Your task to perform on an android device: Open calendar and show me the fourth week of next month Image 0: 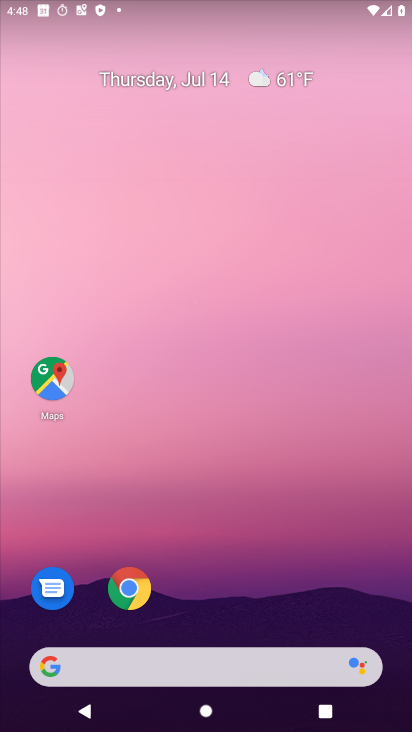
Step 0: drag from (217, 661) to (322, 344)
Your task to perform on an android device: Open calendar and show me the fourth week of next month Image 1: 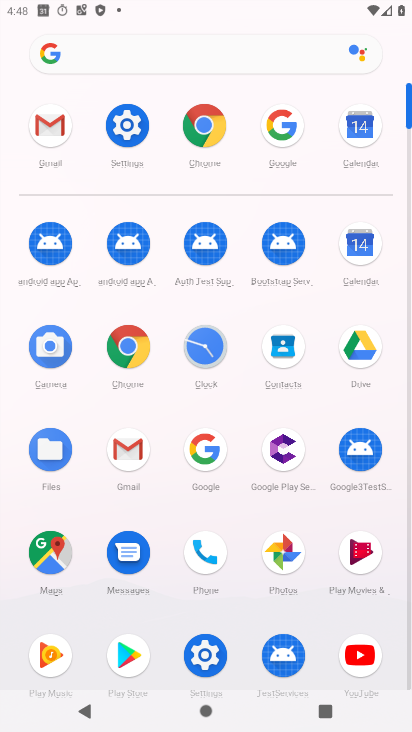
Step 1: click (358, 243)
Your task to perform on an android device: Open calendar and show me the fourth week of next month Image 2: 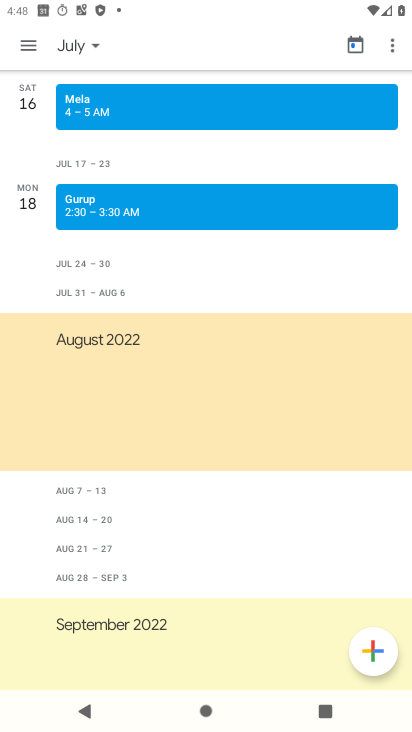
Step 2: click (356, 44)
Your task to perform on an android device: Open calendar and show me the fourth week of next month Image 3: 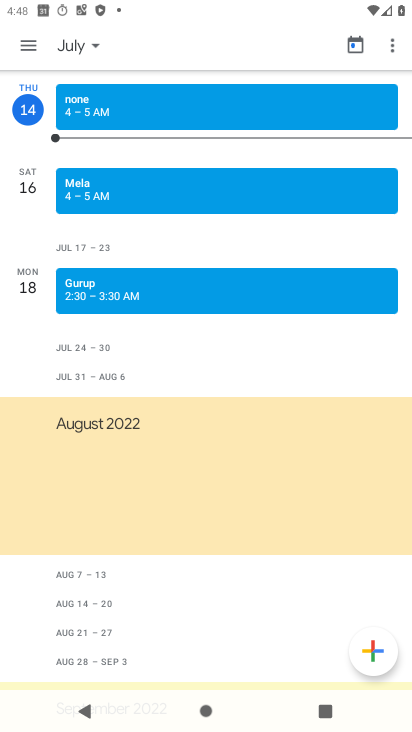
Step 3: click (93, 42)
Your task to perform on an android device: Open calendar and show me the fourth week of next month Image 4: 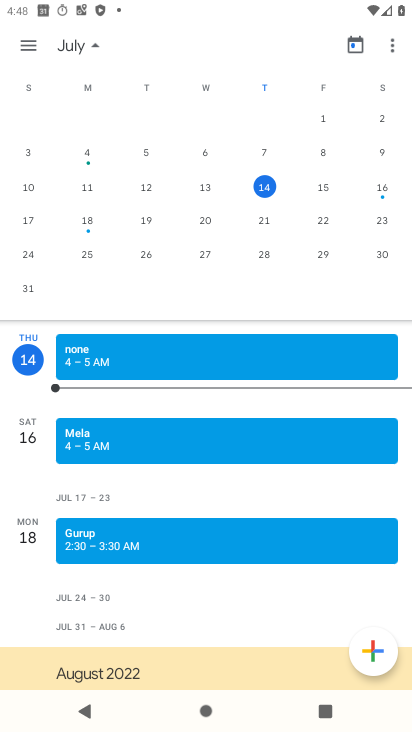
Step 4: drag from (364, 237) to (19, 228)
Your task to perform on an android device: Open calendar and show me the fourth week of next month Image 5: 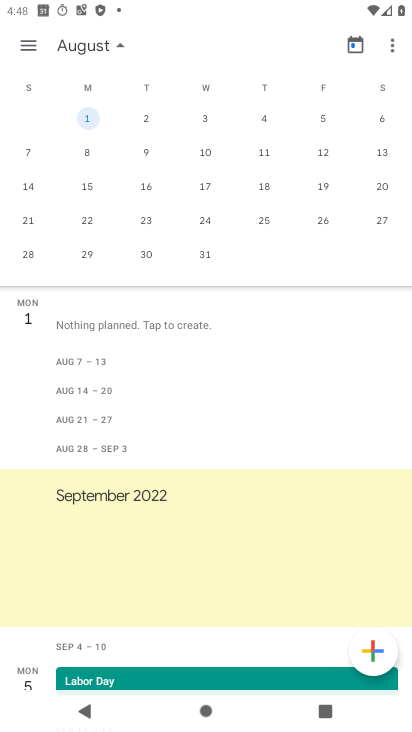
Step 5: click (91, 216)
Your task to perform on an android device: Open calendar and show me the fourth week of next month Image 6: 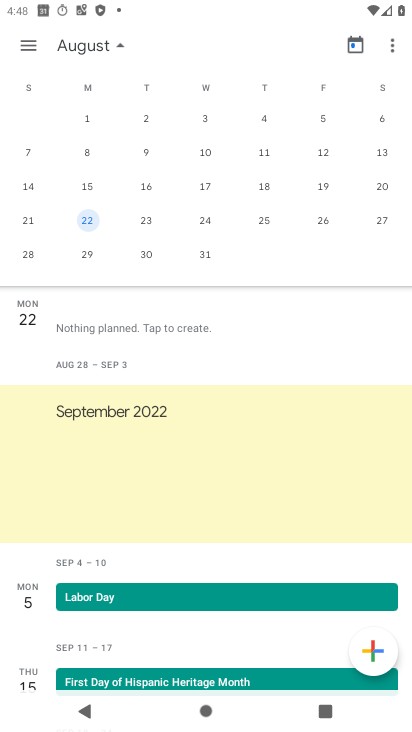
Step 6: click (30, 41)
Your task to perform on an android device: Open calendar and show me the fourth week of next month Image 7: 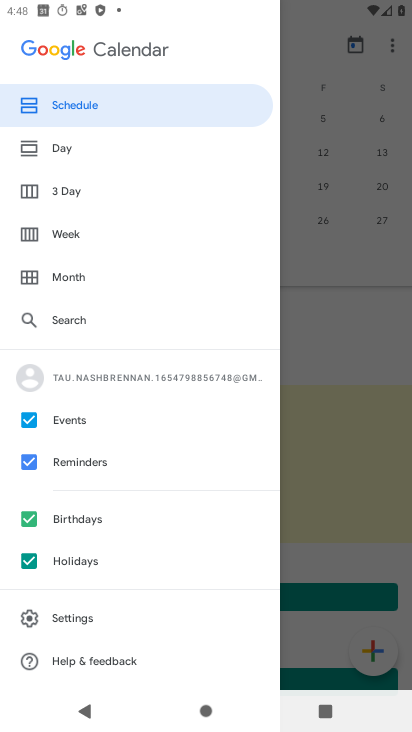
Step 7: click (66, 236)
Your task to perform on an android device: Open calendar and show me the fourth week of next month Image 8: 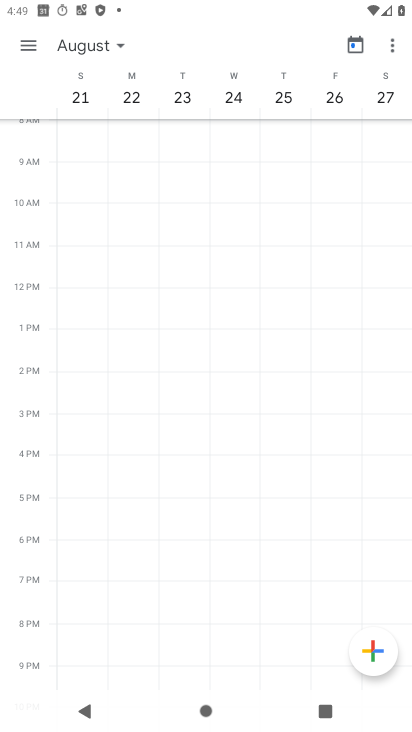
Step 8: task complete